Your task to perform on an android device: Open Wikipedia Image 0: 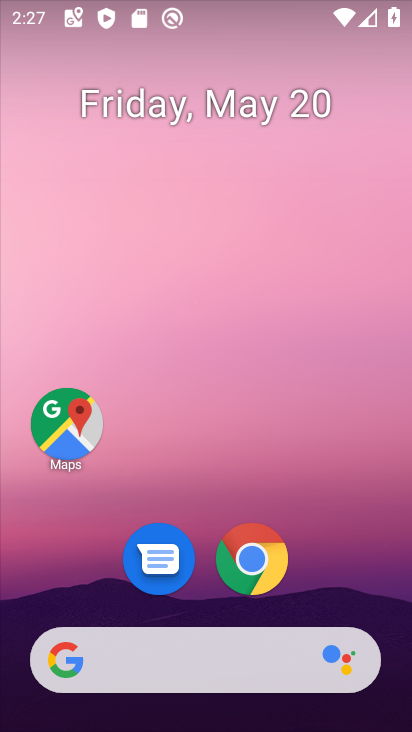
Step 0: click (258, 544)
Your task to perform on an android device: Open Wikipedia Image 1: 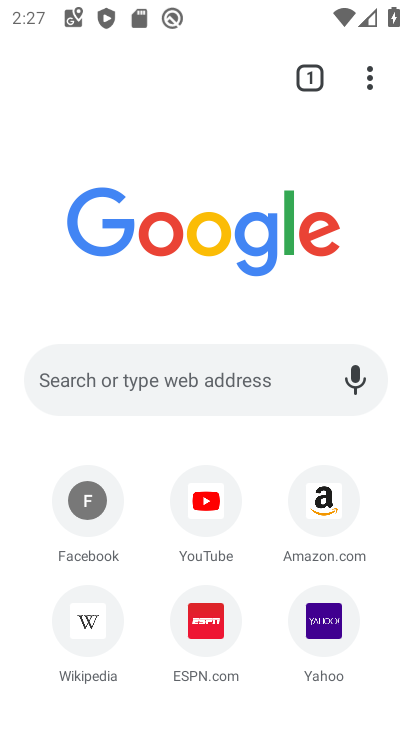
Step 1: click (87, 624)
Your task to perform on an android device: Open Wikipedia Image 2: 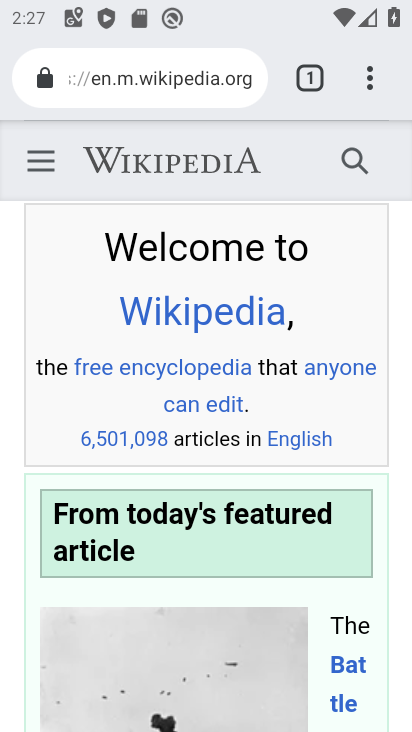
Step 2: task complete